Your task to perform on an android device: Open the map Image 0: 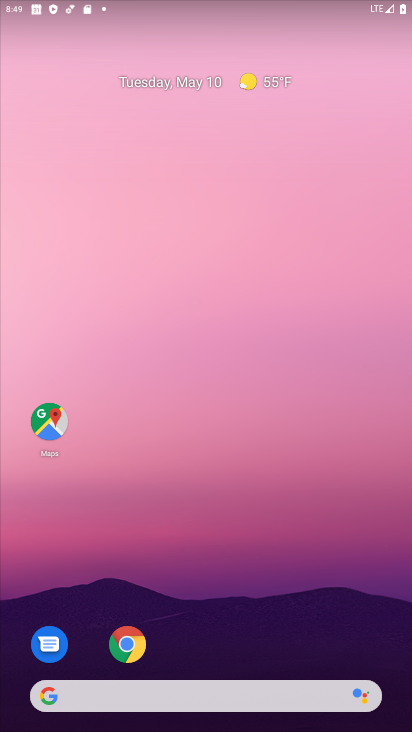
Step 0: drag from (240, 641) to (241, 162)
Your task to perform on an android device: Open the map Image 1: 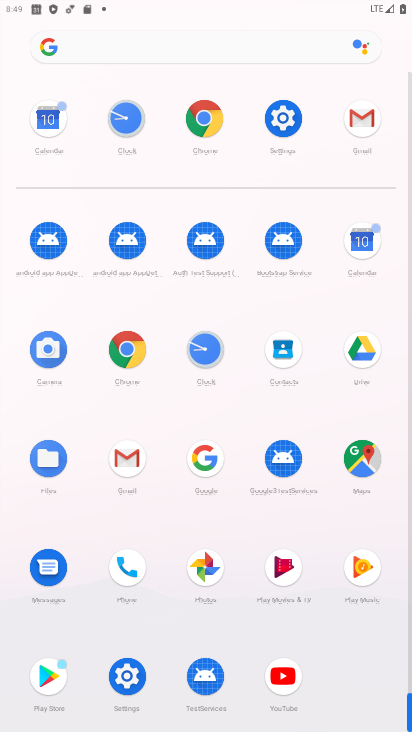
Step 1: drag from (226, 365) to (239, 154)
Your task to perform on an android device: Open the map Image 2: 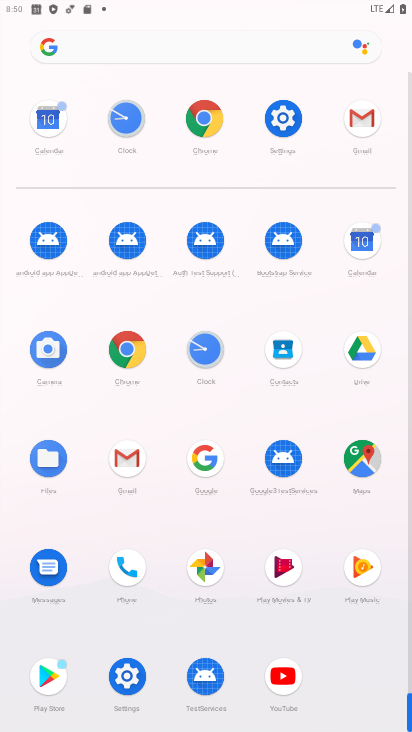
Step 2: click (355, 474)
Your task to perform on an android device: Open the map Image 3: 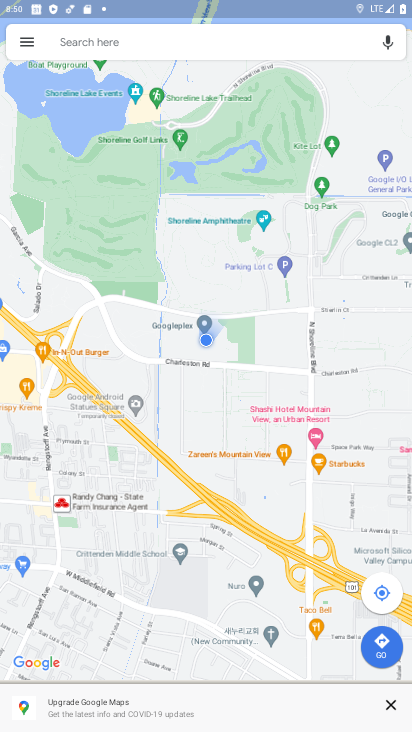
Step 3: task complete